Your task to perform on an android device: Open Wikipedia Image 0: 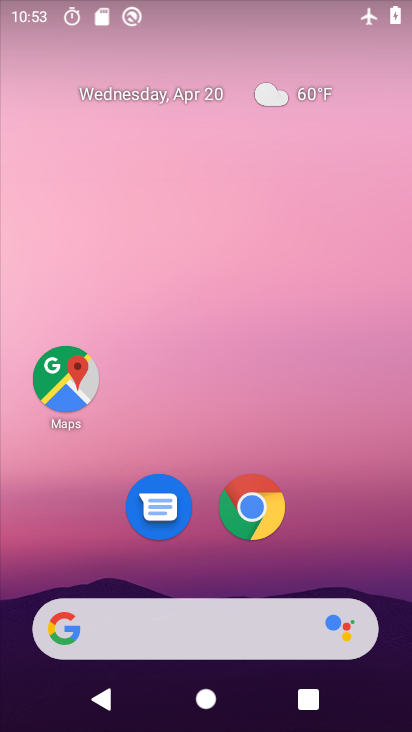
Step 0: click (248, 504)
Your task to perform on an android device: Open Wikipedia Image 1: 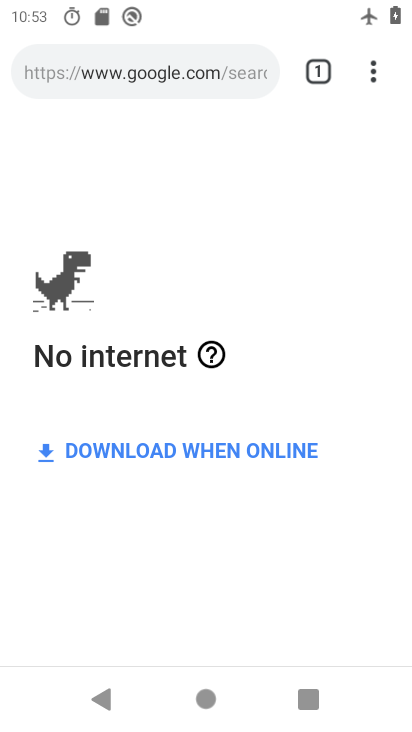
Step 1: task complete